Your task to perform on an android device: turn on showing notifications on the lock screen Image 0: 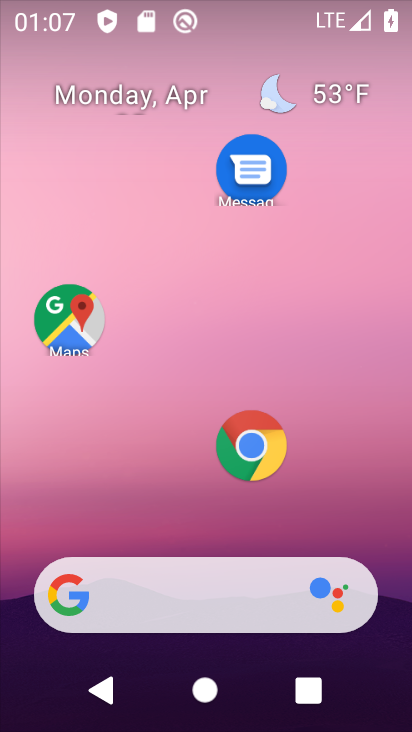
Step 0: drag from (158, 520) to (241, 0)
Your task to perform on an android device: turn on showing notifications on the lock screen Image 1: 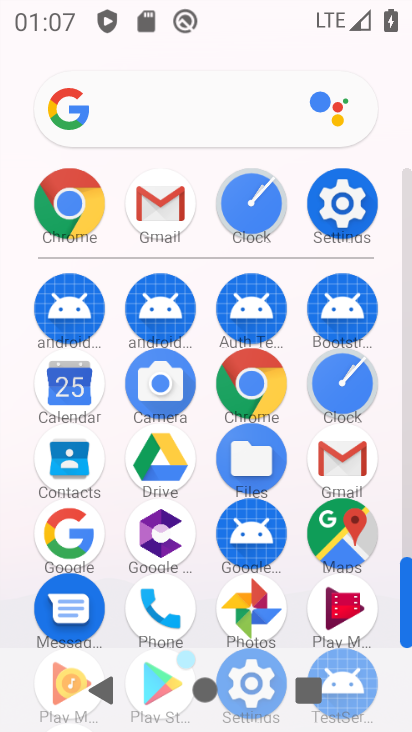
Step 1: click (356, 202)
Your task to perform on an android device: turn on showing notifications on the lock screen Image 2: 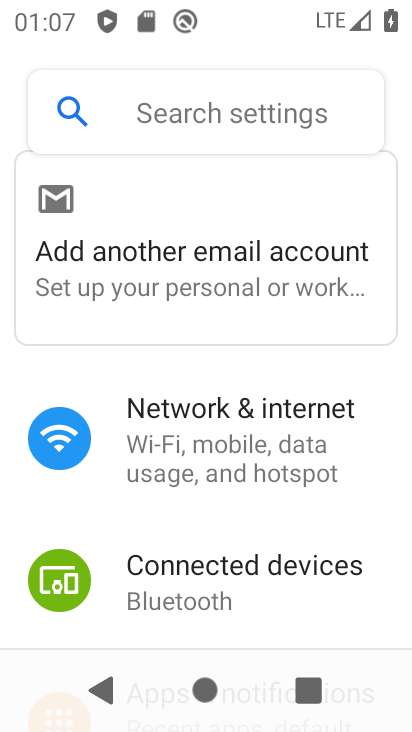
Step 2: drag from (199, 548) to (306, 104)
Your task to perform on an android device: turn on showing notifications on the lock screen Image 3: 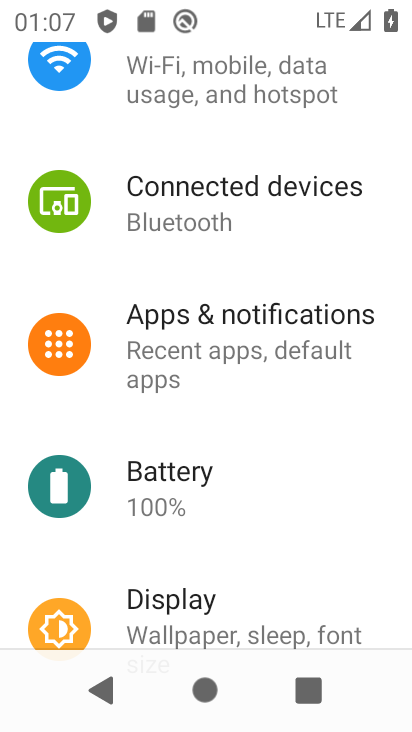
Step 3: click (222, 347)
Your task to perform on an android device: turn on showing notifications on the lock screen Image 4: 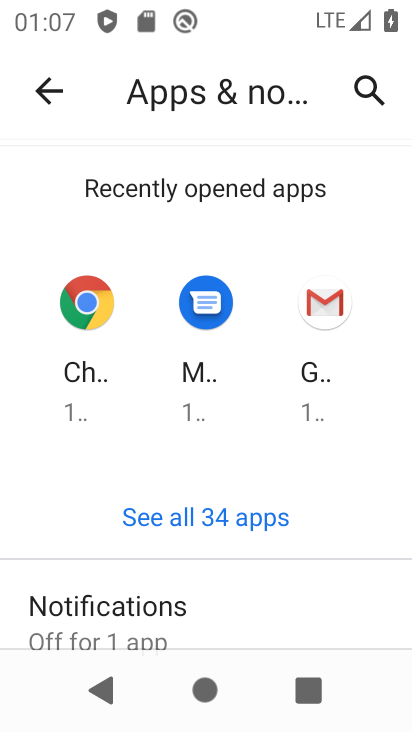
Step 4: click (104, 607)
Your task to perform on an android device: turn on showing notifications on the lock screen Image 5: 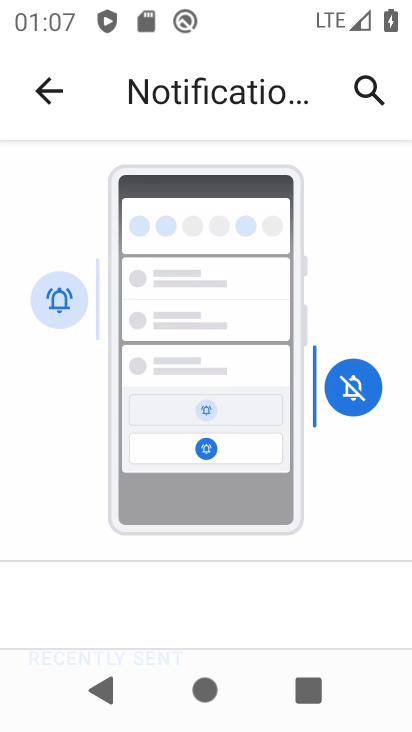
Step 5: drag from (155, 567) to (255, 149)
Your task to perform on an android device: turn on showing notifications on the lock screen Image 6: 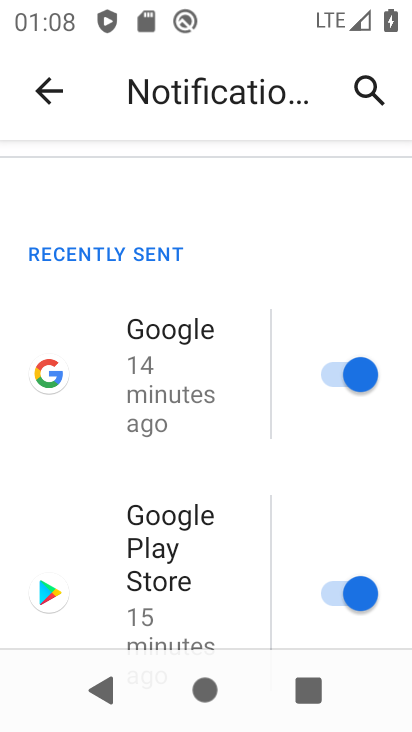
Step 6: drag from (224, 374) to (282, 135)
Your task to perform on an android device: turn on showing notifications on the lock screen Image 7: 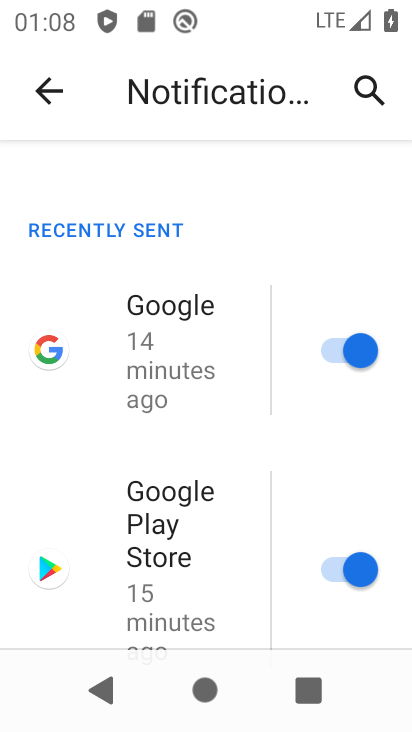
Step 7: drag from (170, 576) to (230, 71)
Your task to perform on an android device: turn on showing notifications on the lock screen Image 8: 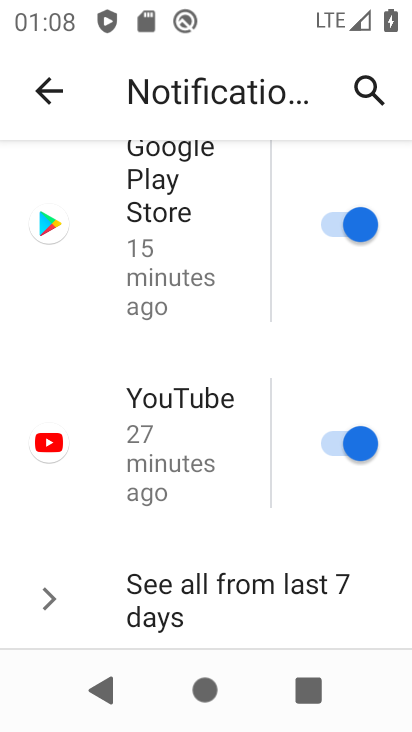
Step 8: drag from (232, 592) to (286, 17)
Your task to perform on an android device: turn on showing notifications on the lock screen Image 9: 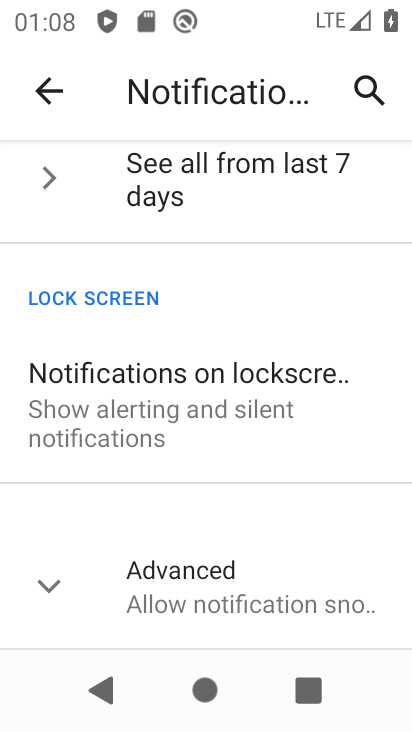
Step 9: click (250, 400)
Your task to perform on an android device: turn on showing notifications on the lock screen Image 10: 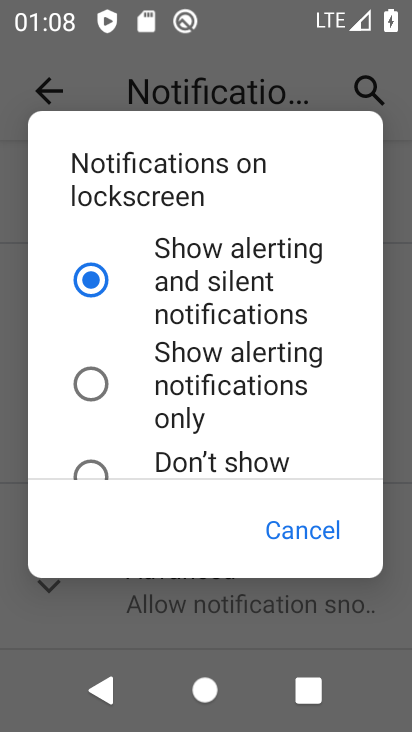
Step 10: task complete